Your task to perform on an android device: Search for Mexican restaurants on Maps Image 0: 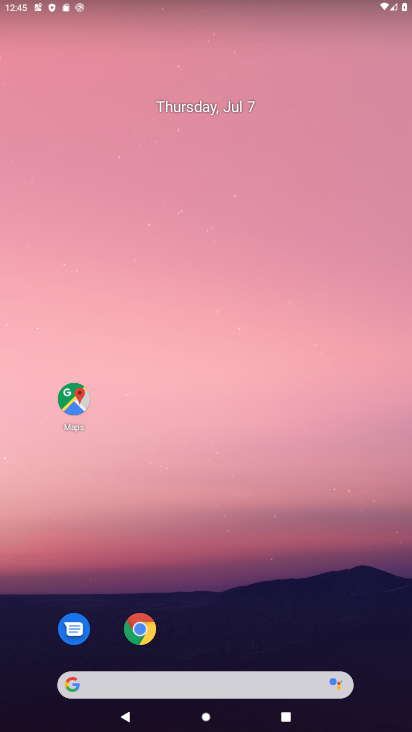
Step 0: click (73, 398)
Your task to perform on an android device: Search for Mexican restaurants on Maps Image 1: 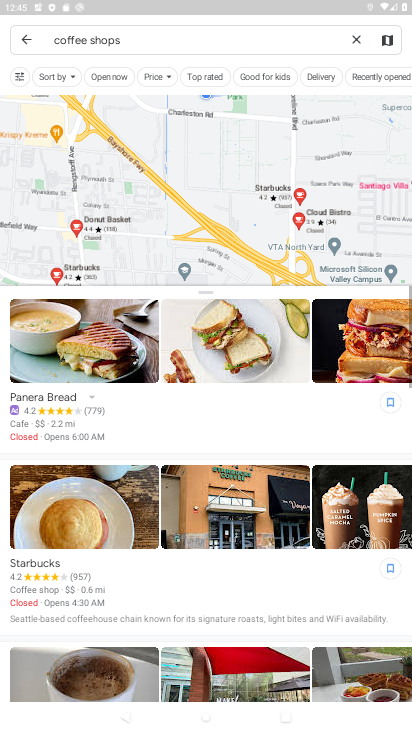
Step 1: click (363, 41)
Your task to perform on an android device: Search for Mexican restaurants on Maps Image 2: 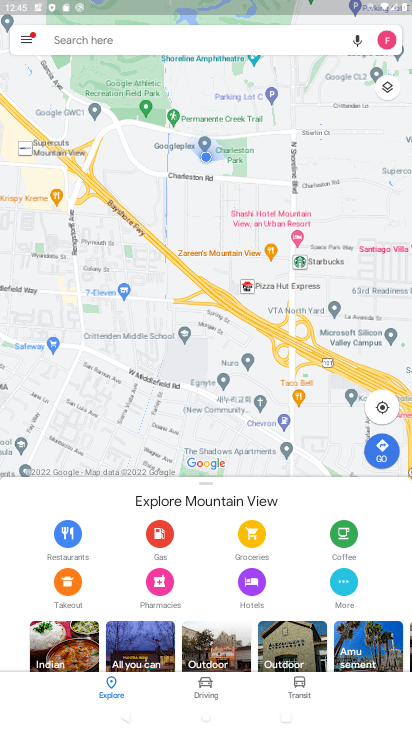
Step 2: click (210, 41)
Your task to perform on an android device: Search for Mexican restaurants on Maps Image 3: 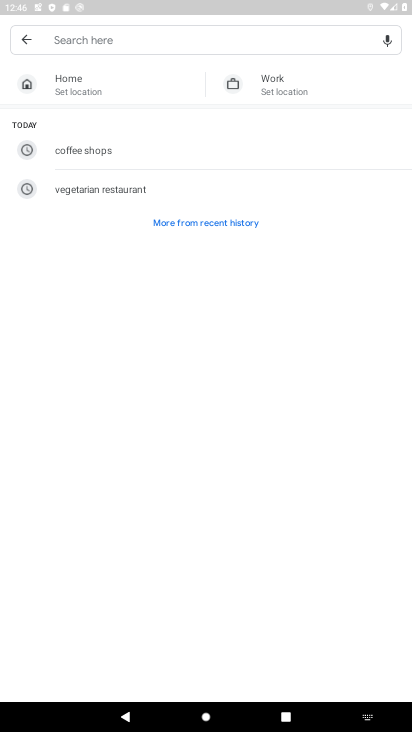
Step 3: type "Mexican restaurants"
Your task to perform on an android device: Search for Mexican restaurants on Maps Image 4: 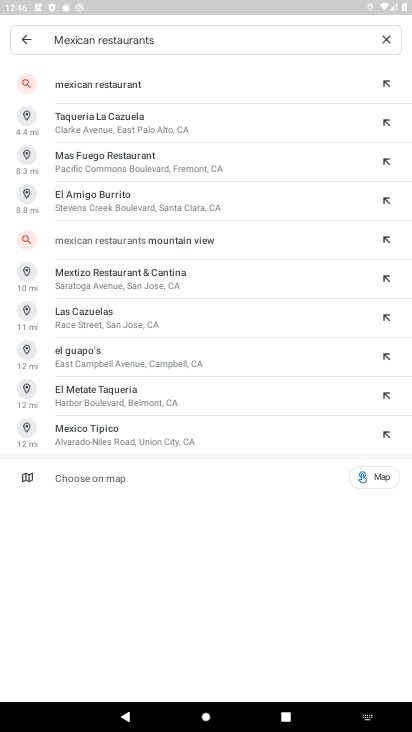
Step 4: click (137, 87)
Your task to perform on an android device: Search for Mexican restaurants on Maps Image 5: 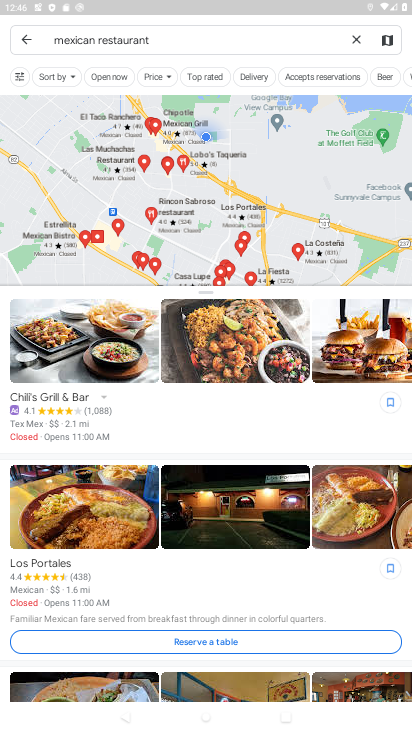
Step 5: task complete